Your task to perform on an android device: Open calendar and show me the second week of next month Image 0: 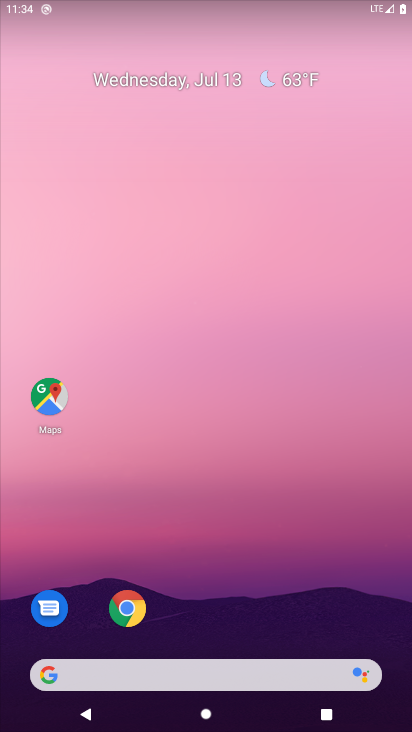
Step 0: press home button
Your task to perform on an android device: Open calendar and show me the second week of next month Image 1: 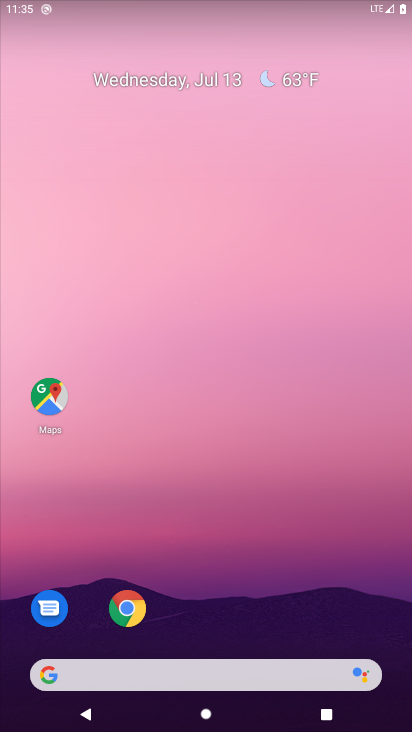
Step 1: drag from (352, 574) to (342, 0)
Your task to perform on an android device: Open calendar and show me the second week of next month Image 2: 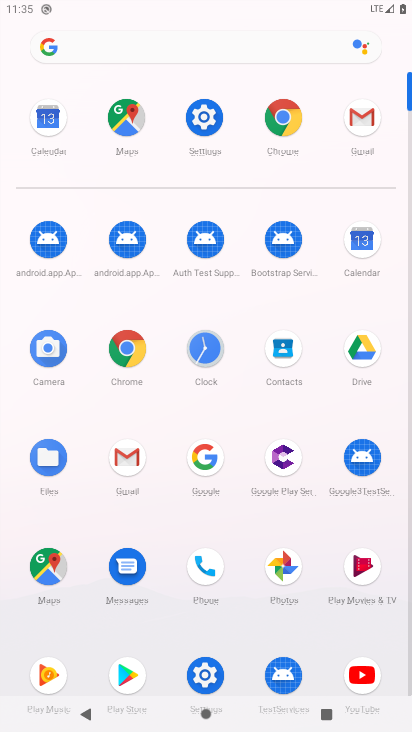
Step 2: click (366, 234)
Your task to perform on an android device: Open calendar and show me the second week of next month Image 3: 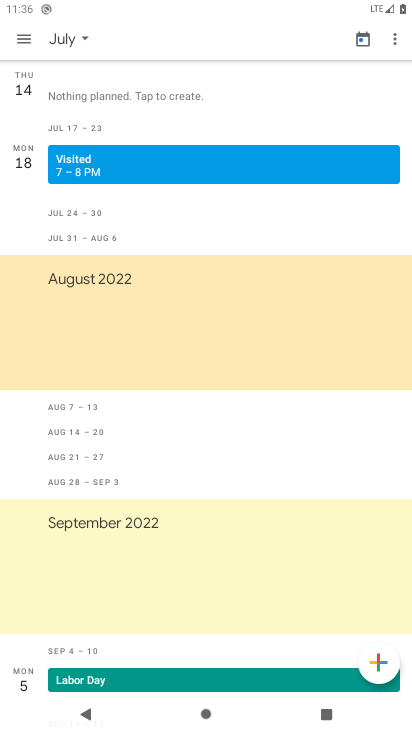
Step 3: click (71, 40)
Your task to perform on an android device: Open calendar and show me the second week of next month Image 4: 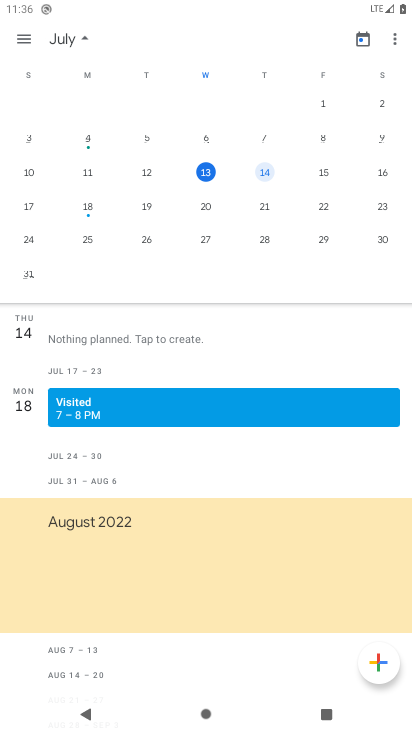
Step 4: drag from (323, 198) to (29, 304)
Your task to perform on an android device: Open calendar and show me the second week of next month Image 5: 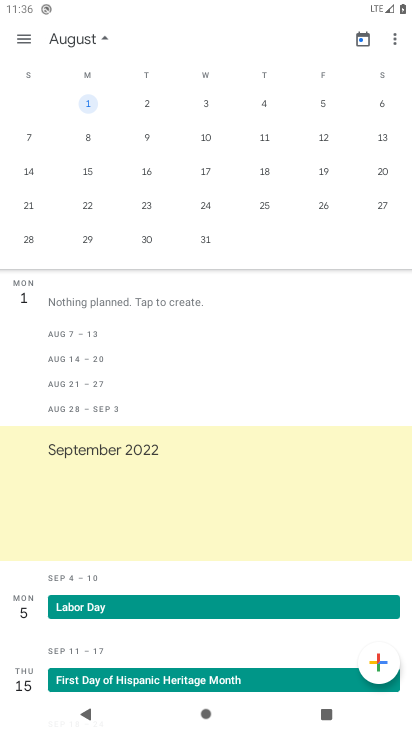
Step 5: click (95, 138)
Your task to perform on an android device: Open calendar and show me the second week of next month Image 6: 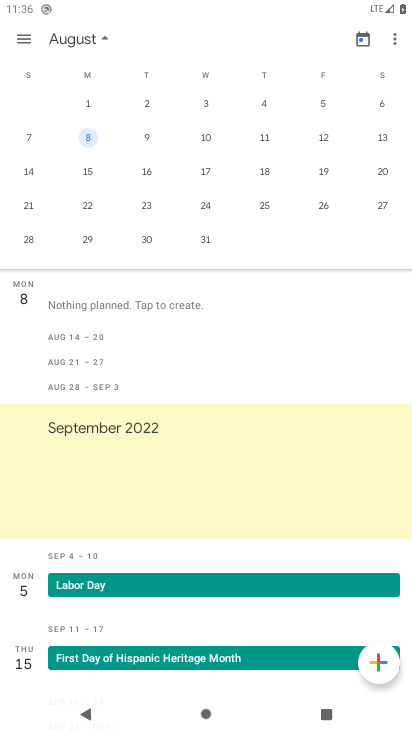
Step 6: task complete